Your task to perform on an android device: remove spam from my inbox in the gmail app Image 0: 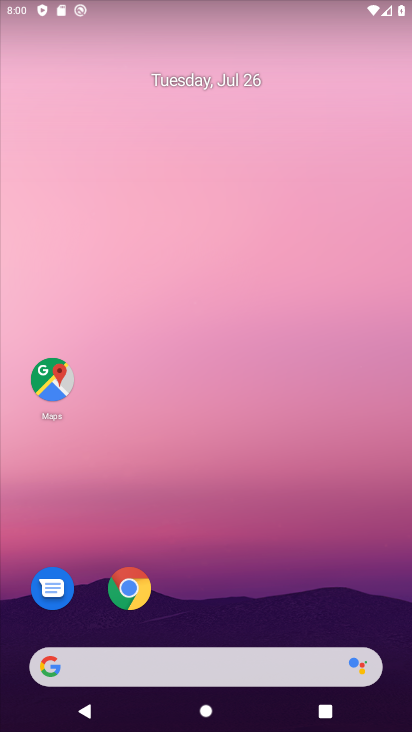
Step 0: drag from (215, 648) to (224, 292)
Your task to perform on an android device: remove spam from my inbox in the gmail app Image 1: 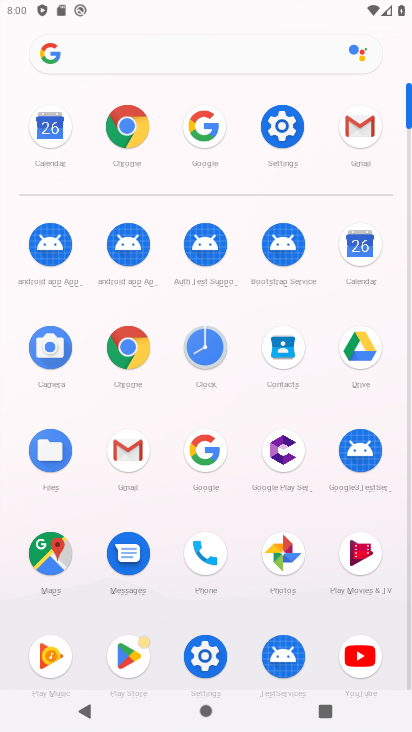
Step 1: click (367, 136)
Your task to perform on an android device: remove spam from my inbox in the gmail app Image 2: 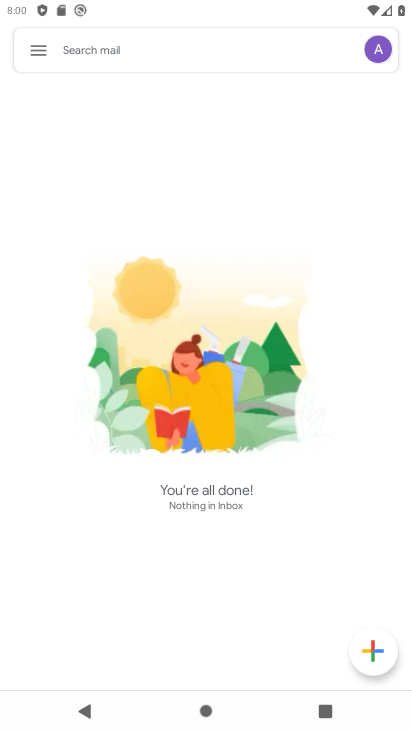
Step 2: click (29, 53)
Your task to perform on an android device: remove spam from my inbox in the gmail app Image 3: 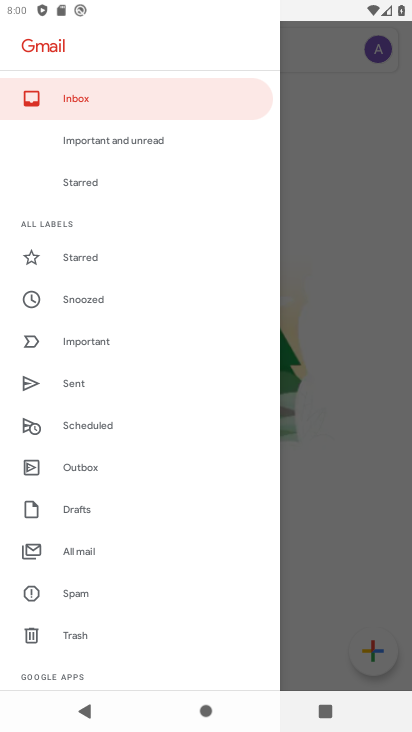
Step 3: click (58, 606)
Your task to perform on an android device: remove spam from my inbox in the gmail app Image 4: 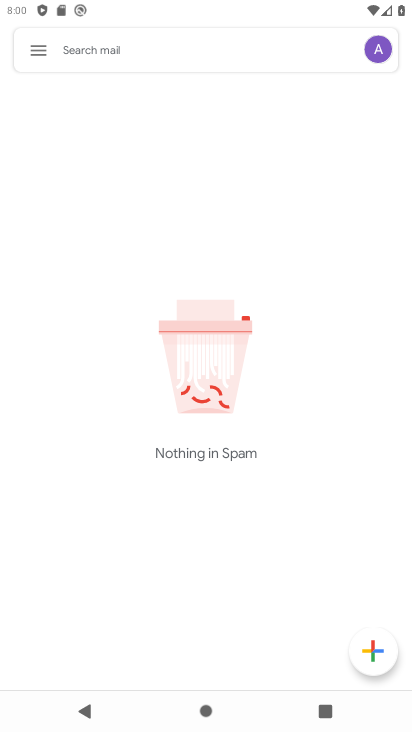
Step 4: task complete